Your task to perform on an android device: Go to internet settings Image 0: 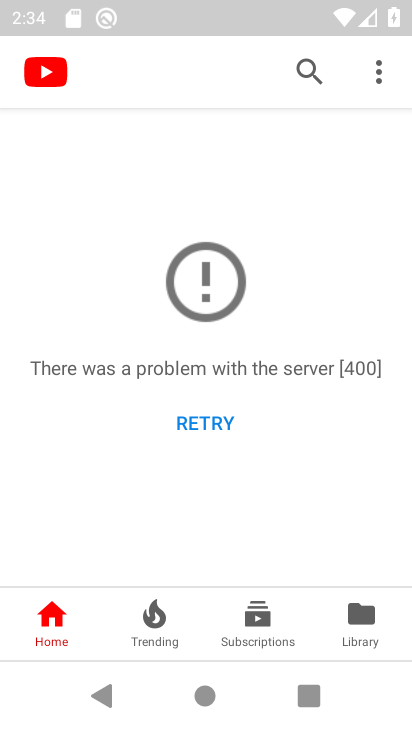
Step 0: press home button
Your task to perform on an android device: Go to internet settings Image 1: 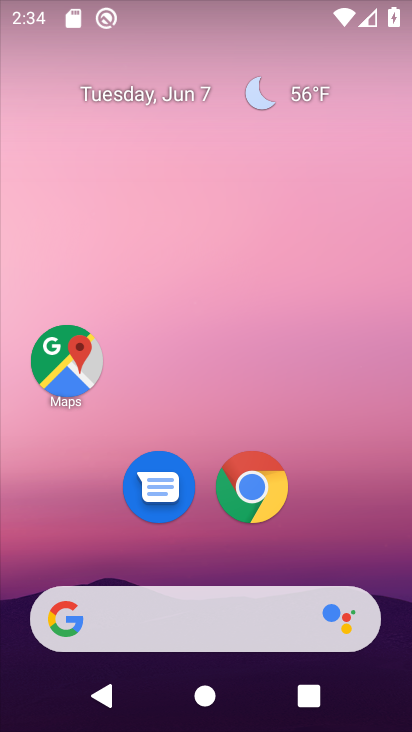
Step 1: drag from (407, 587) to (322, 250)
Your task to perform on an android device: Go to internet settings Image 2: 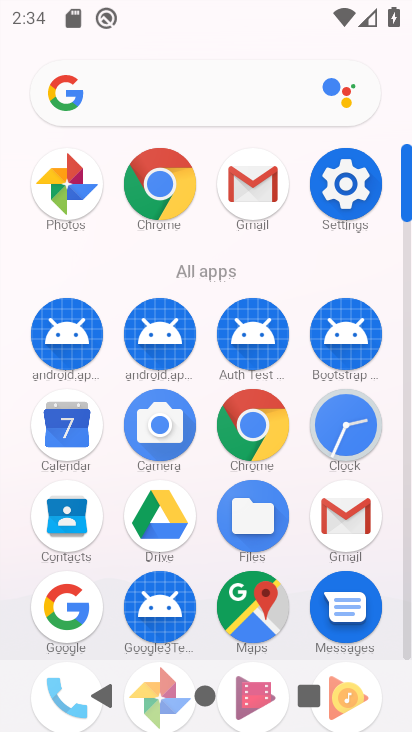
Step 2: click (355, 189)
Your task to perform on an android device: Go to internet settings Image 3: 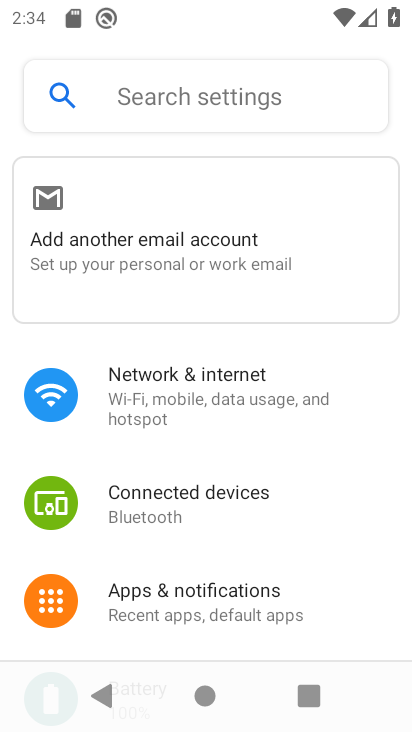
Step 3: click (283, 384)
Your task to perform on an android device: Go to internet settings Image 4: 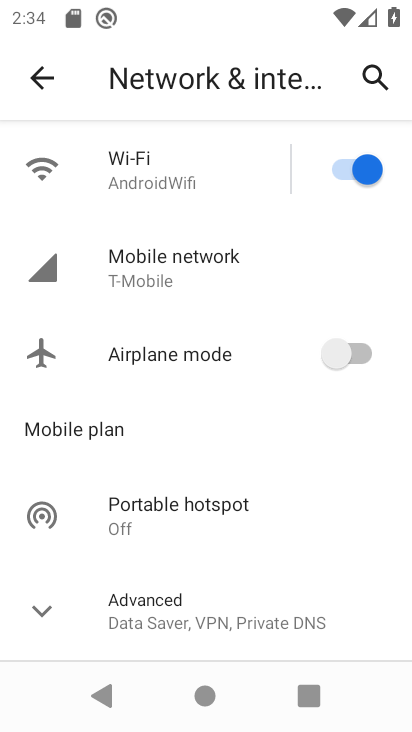
Step 4: task complete